Your task to perform on an android device: Search for the best rated wireless headphones on Amazon. Image 0: 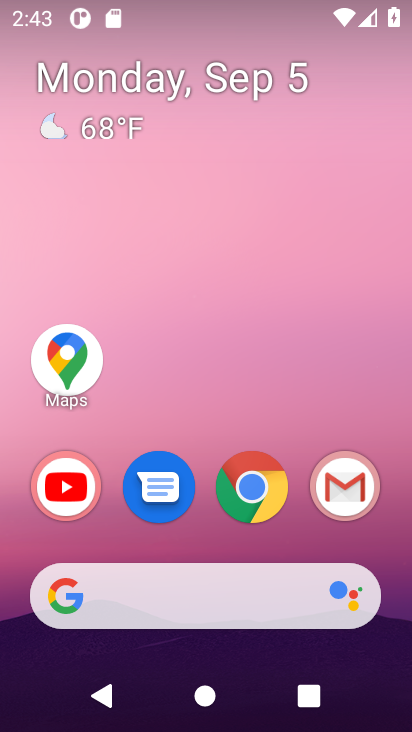
Step 0: click (249, 493)
Your task to perform on an android device: Search for the best rated wireless headphones on Amazon. Image 1: 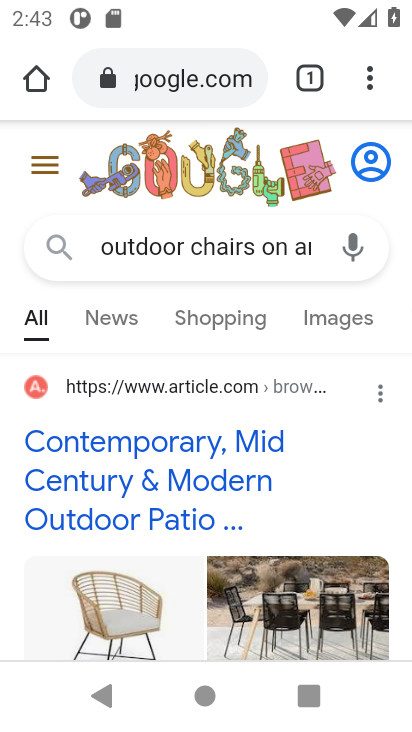
Step 1: click (166, 75)
Your task to perform on an android device: Search for the best rated wireless headphones on Amazon. Image 2: 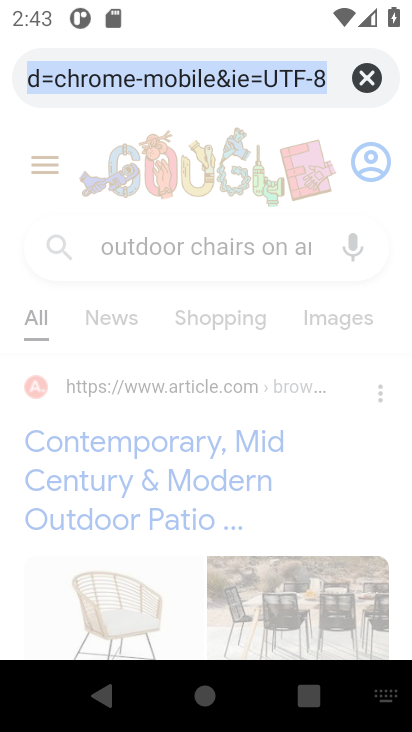
Step 2: click (366, 75)
Your task to perform on an android device: Search for the best rated wireless headphones on Amazon. Image 3: 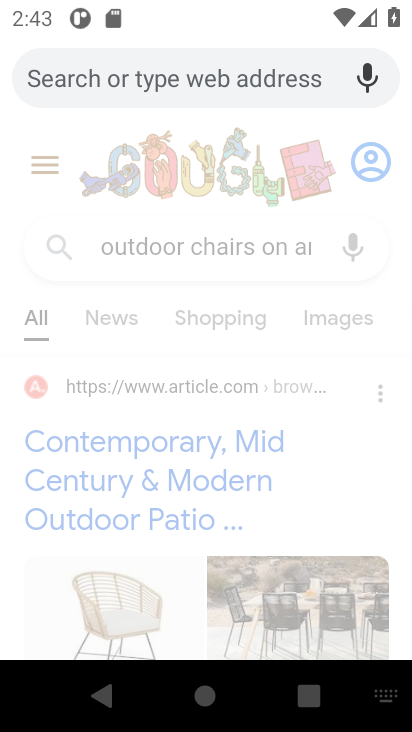
Step 3: type "the best rated wireless headphones on Amazon."
Your task to perform on an android device: Search for the best rated wireless headphones on Amazon. Image 4: 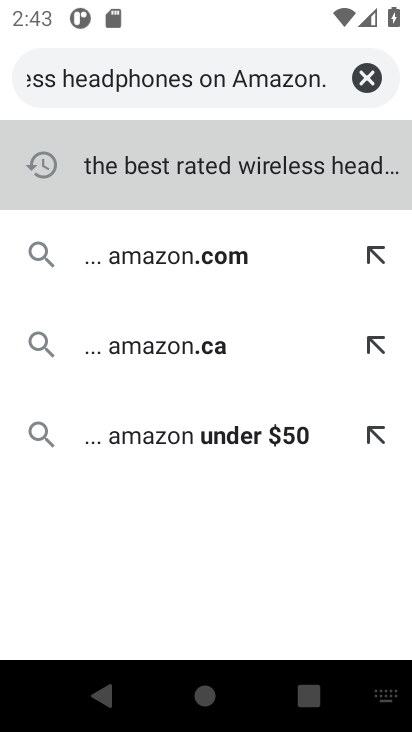
Step 4: click (215, 178)
Your task to perform on an android device: Search for the best rated wireless headphones on Amazon. Image 5: 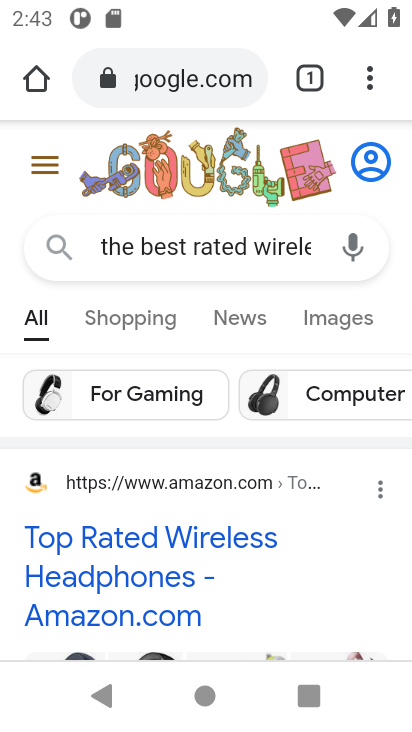
Step 5: task complete